Your task to perform on an android device: Open the web browser Image 0: 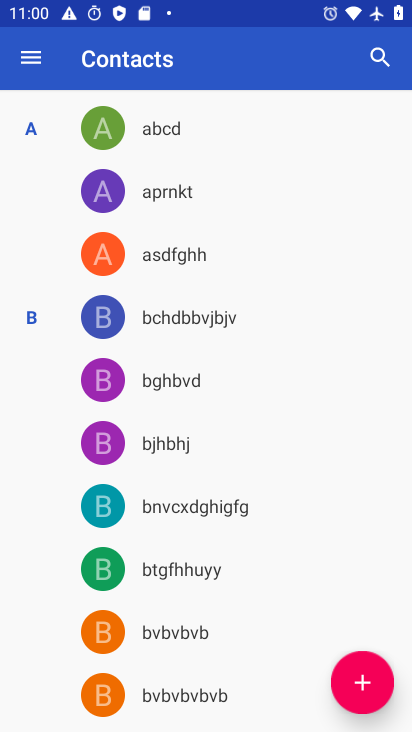
Step 0: press home button
Your task to perform on an android device: Open the web browser Image 1: 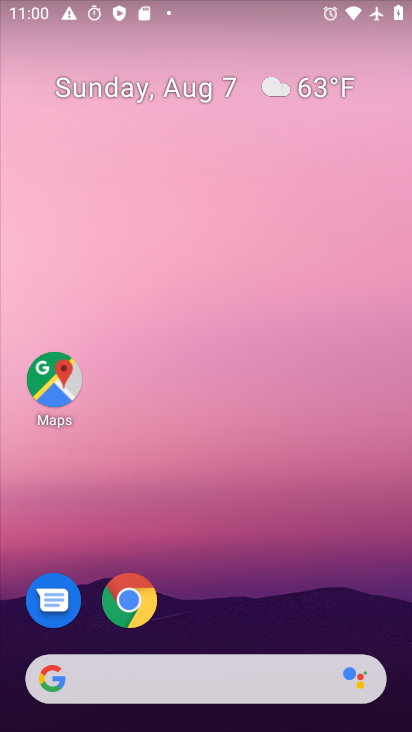
Step 1: drag from (238, 200) to (240, 128)
Your task to perform on an android device: Open the web browser Image 2: 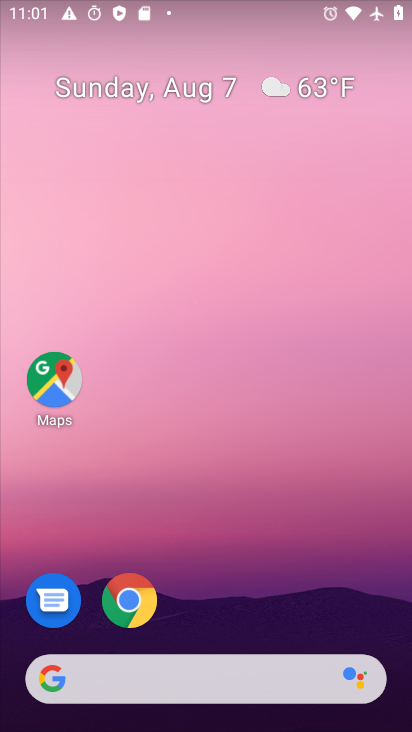
Step 2: drag from (242, 626) to (242, 174)
Your task to perform on an android device: Open the web browser Image 3: 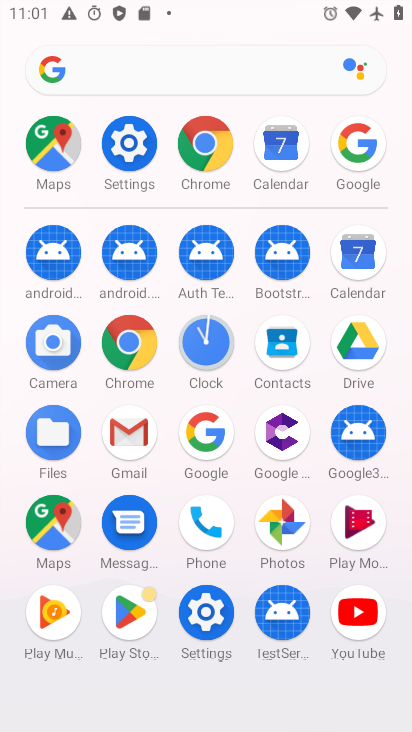
Step 3: click (129, 355)
Your task to perform on an android device: Open the web browser Image 4: 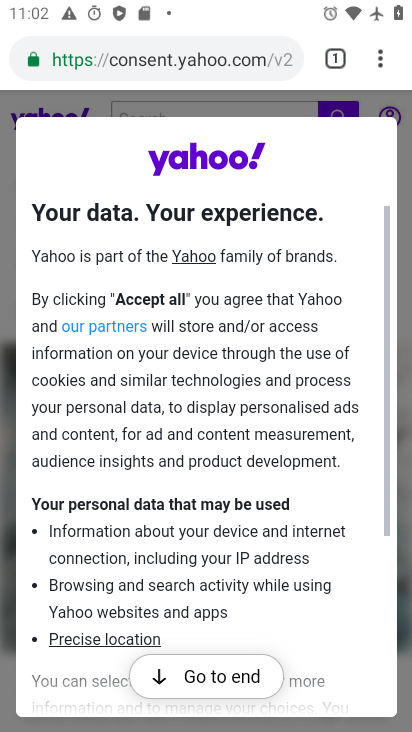
Step 4: task complete